Your task to perform on an android device: install app "YouTube Kids" Image 0: 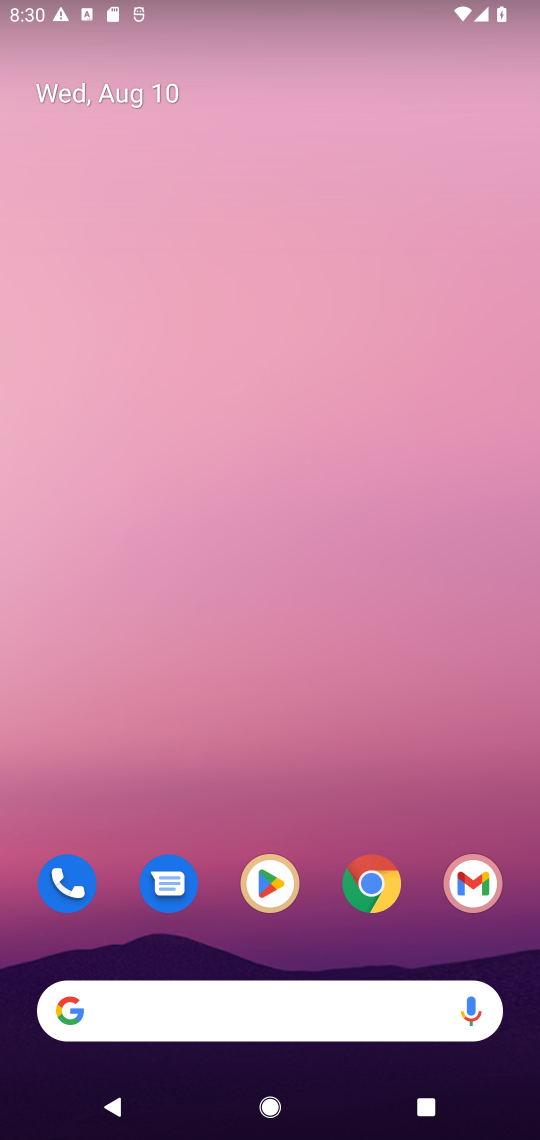
Step 0: drag from (303, 966) to (303, 251)
Your task to perform on an android device: install app "YouTube Kids" Image 1: 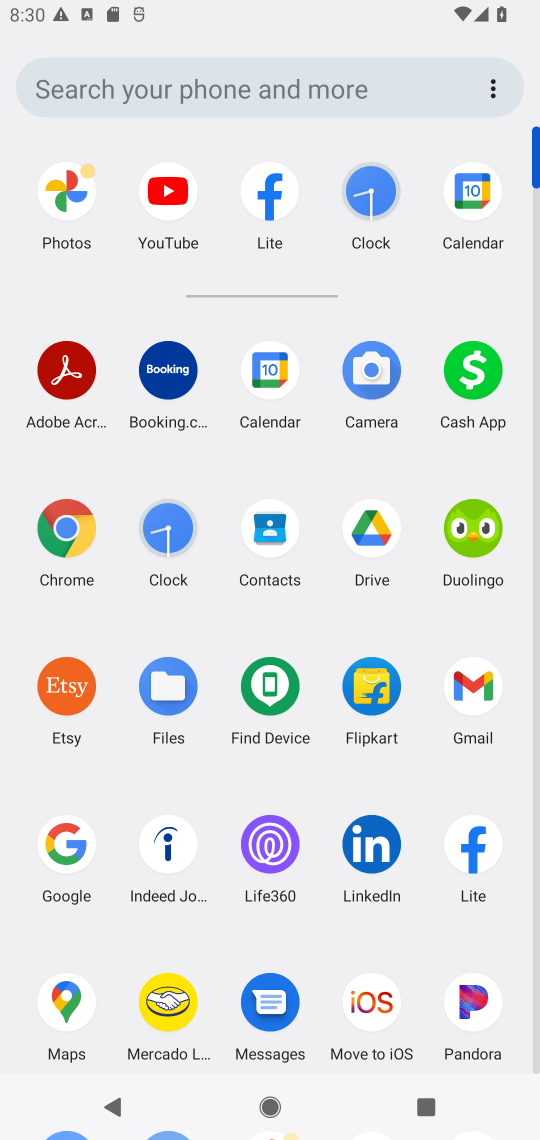
Step 1: drag from (223, 846) to (252, 455)
Your task to perform on an android device: install app "YouTube Kids" Image 2: 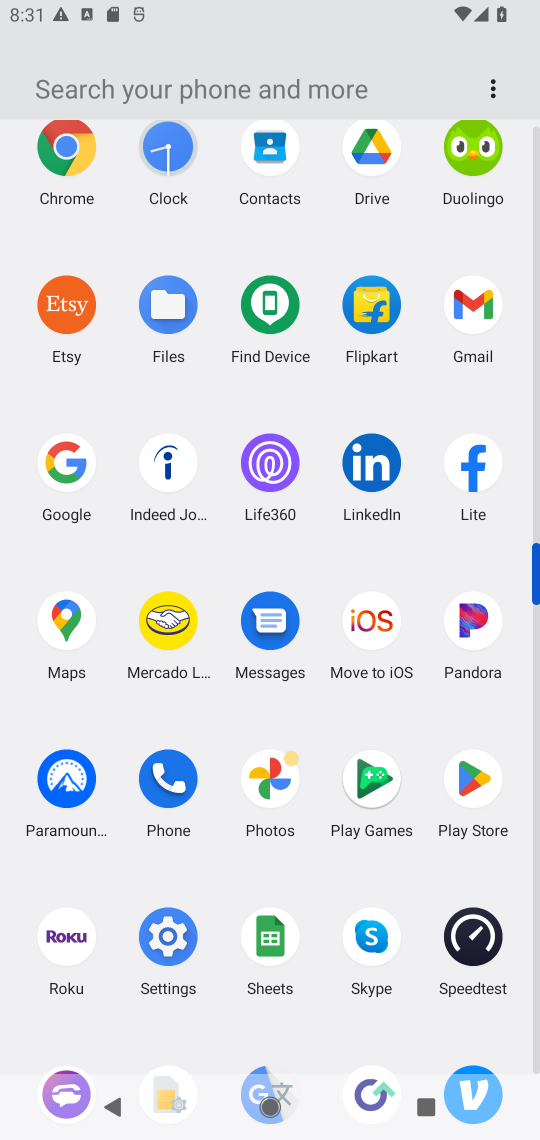
Step 2: click (471, 770)
Your task to perform on an android device: install app "YouTube Kids" Image 3: 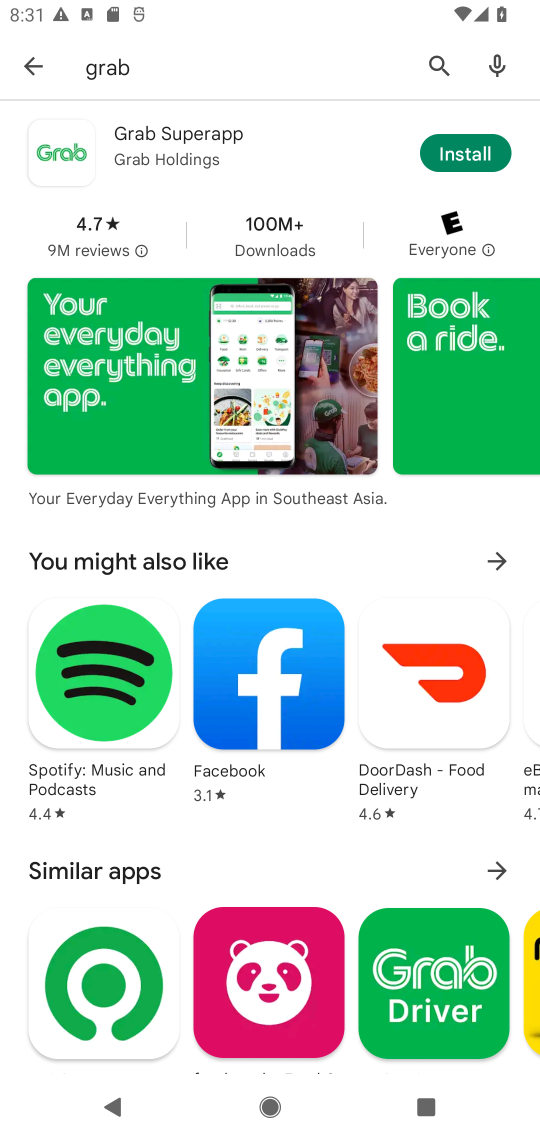
Step 3: click (419, 56)
Your task to perform on an android device: install app "YouTube Kids" Image 4: 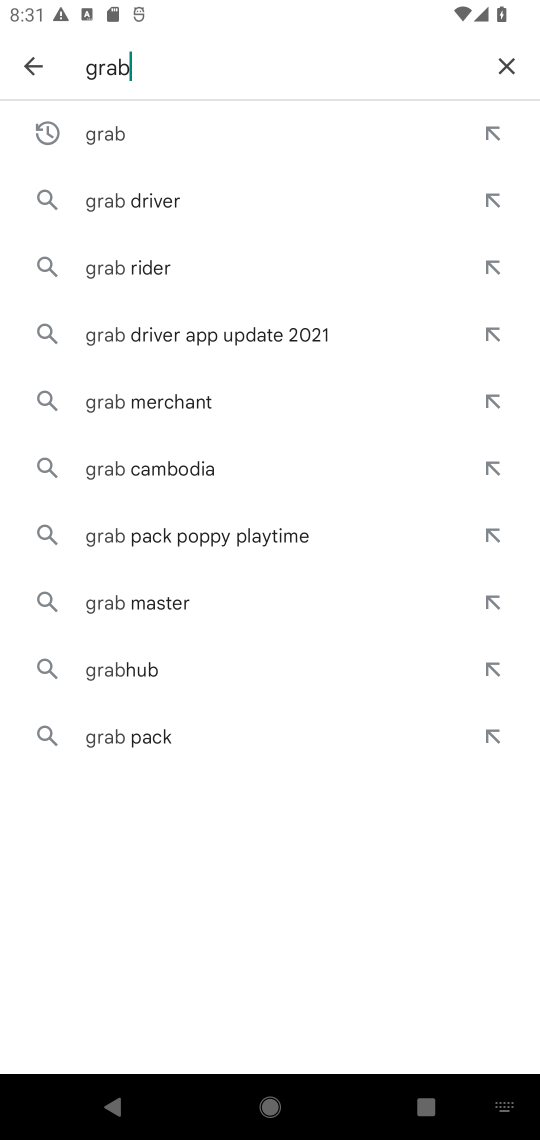
Step 4: click (506, 65)
Your task to perform on an android device: install app "YouTube Kids" Image 5: 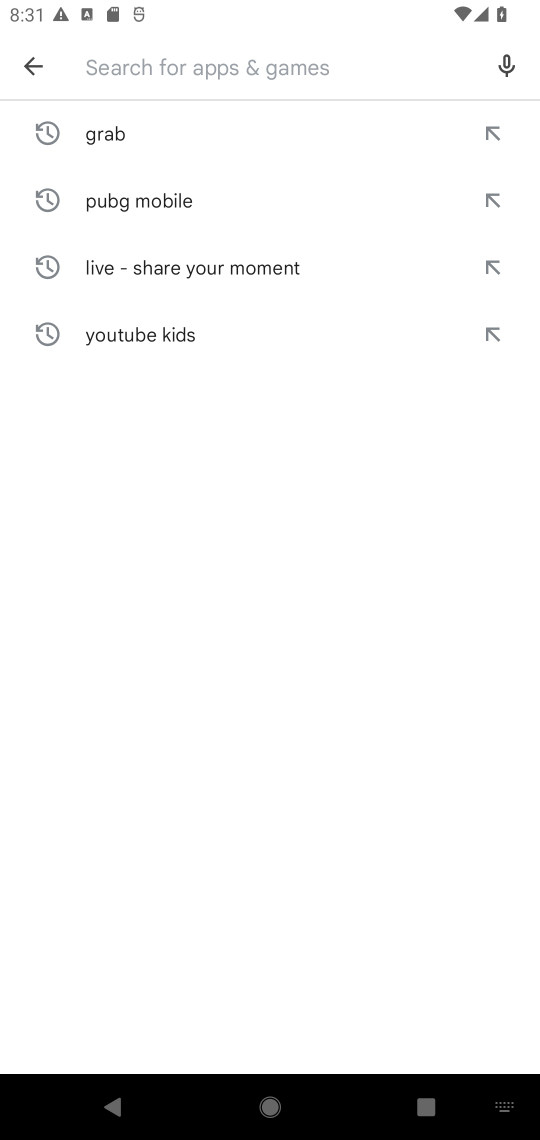
Step 5: type "YouTube Kids"
Your task to perform on an android device: install app "YouTube Kids" Image 6: 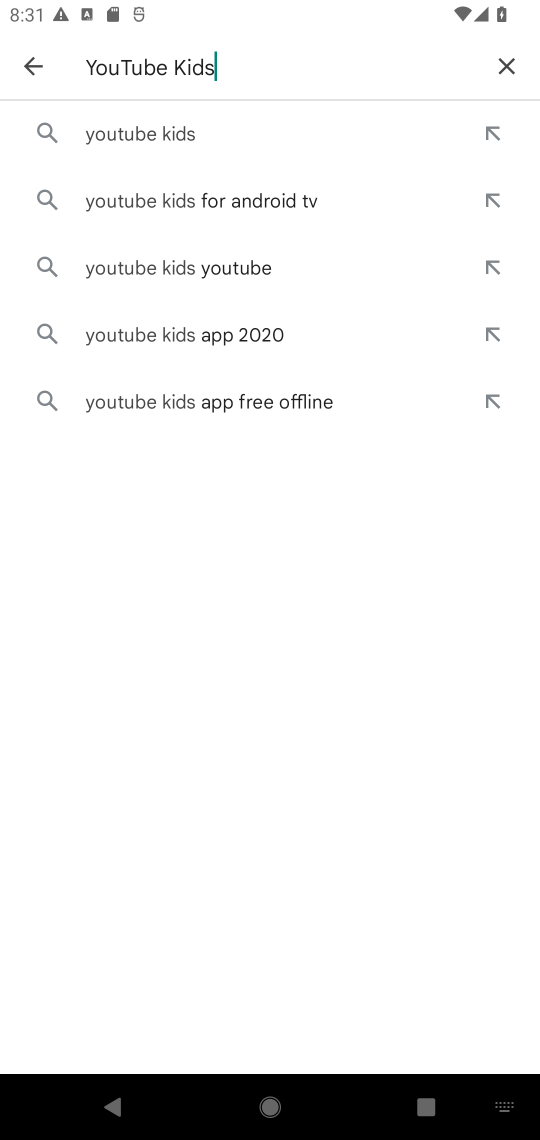
Step 6: click (172, 130)
Your task to perform on an android device: install app "YouTube Kids" Image 7: 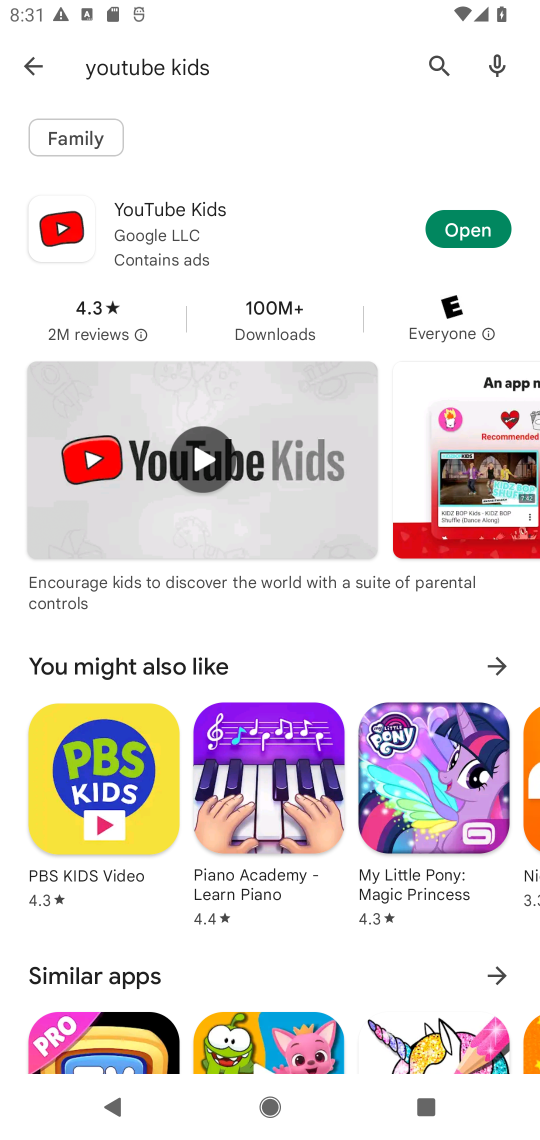
Step 7: task complete